Your task to perform on an android device: What does the iPhone 8 look like on eBay? Image 0: 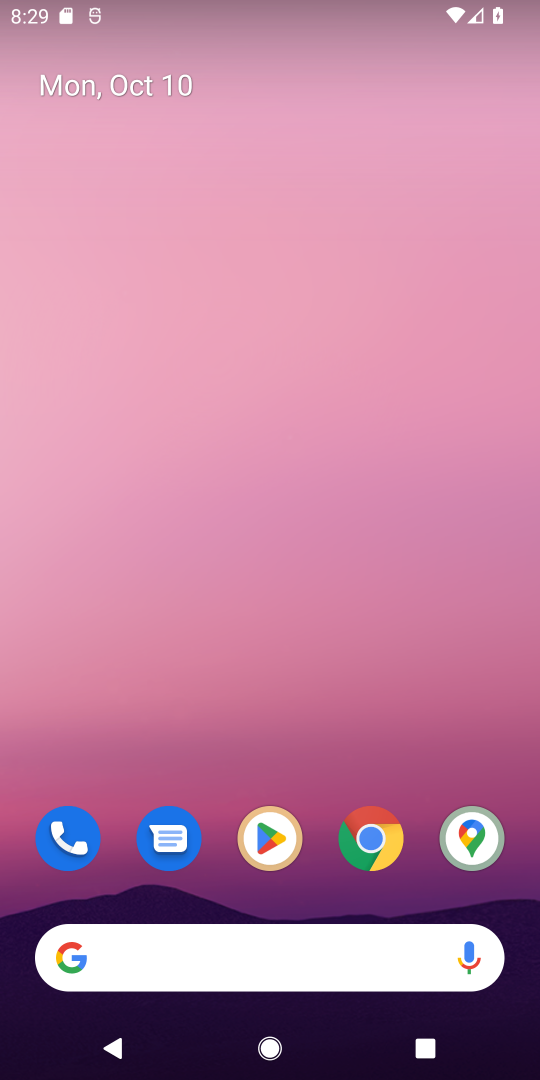
Step 0: click (370, 850)
Your task to perform on an android device: What does the iPhone 8 look like on eBay? Image 1: 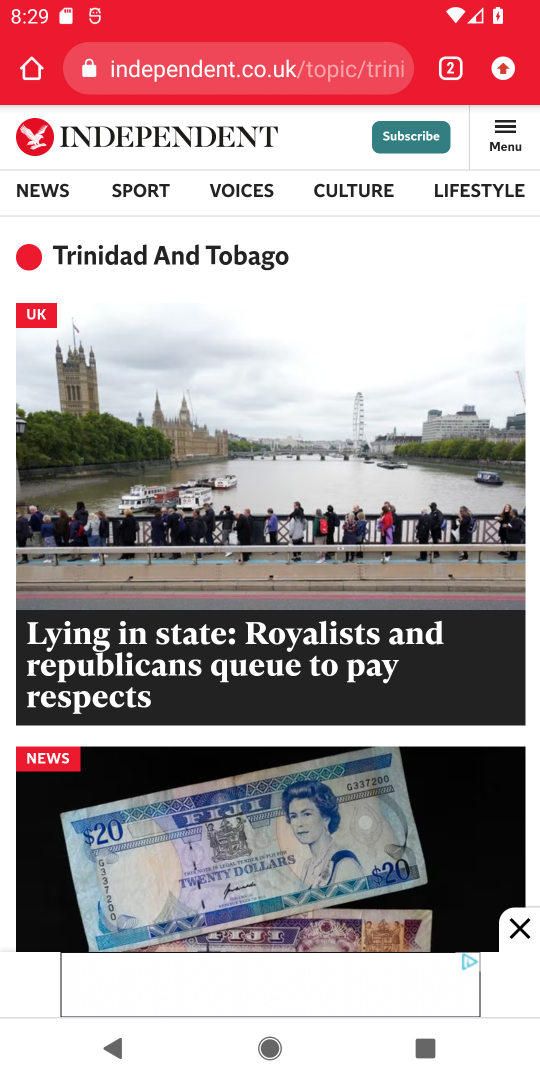
Step 1: click (257, 47)
Your task to perform on an android device: What does the iPhone 8 look like on eBay? Image 2: 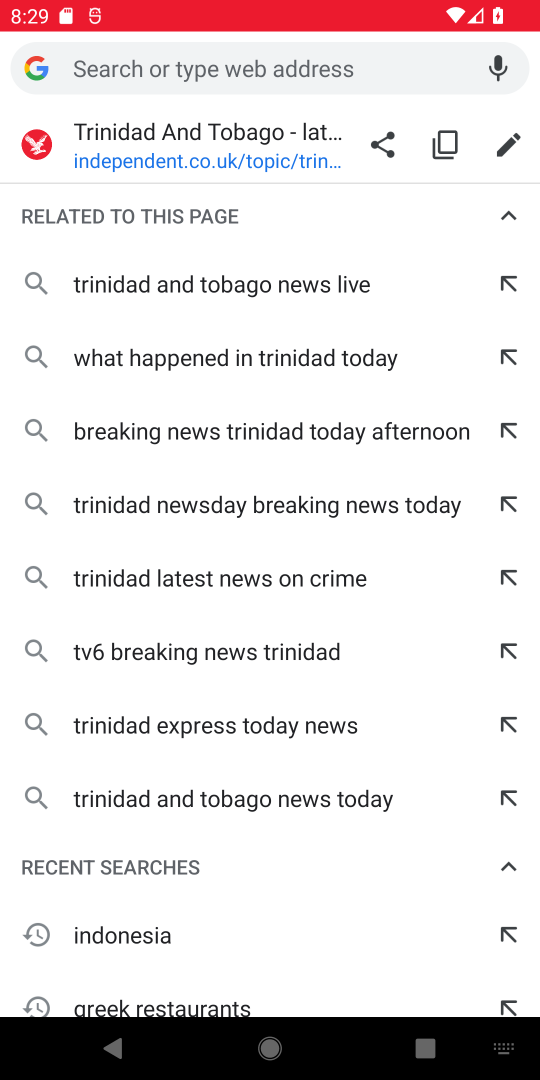
Step 2: type "ebay"
Your task to perform on an android device: What does the iPhone 8 look like on eBay? Image 3: 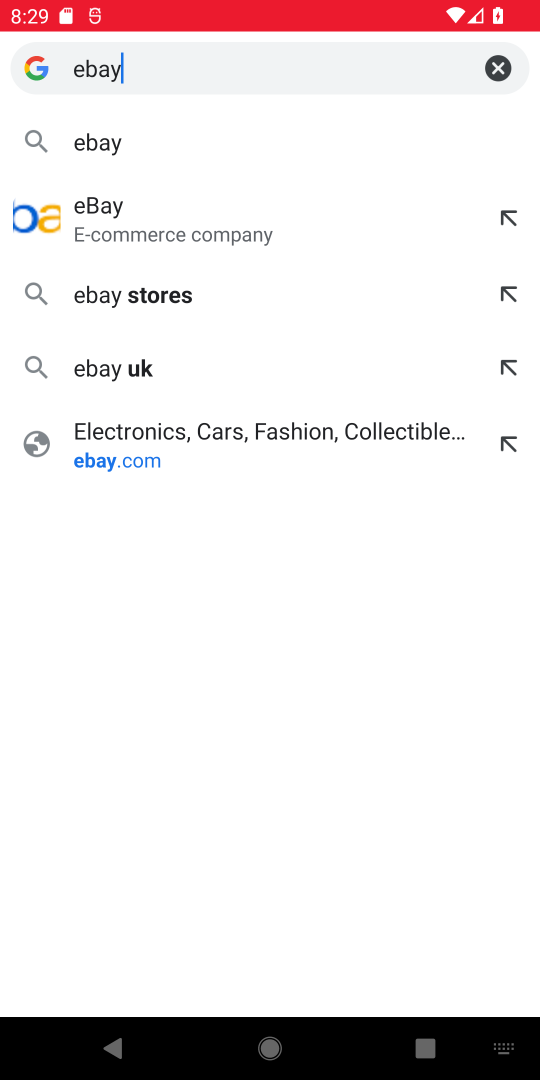
Step 3: click (111, 202)
Your task to perform on an android device: What does the iPhone 8 look like on eBay? Image 4: 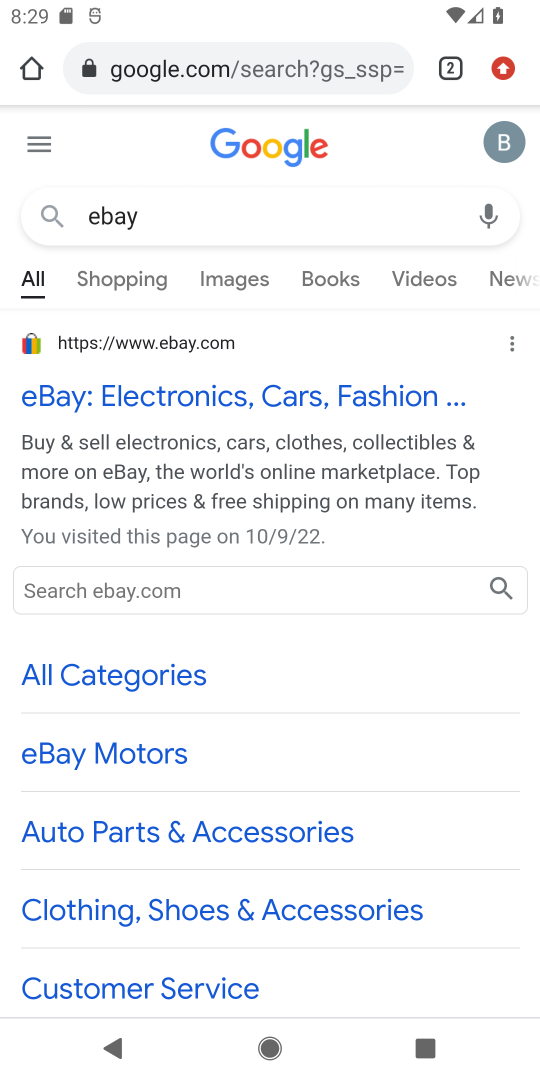
Step 4: click (168, 393)
Your task to perform on an android device: What does the iPhone 8 look like on eBay? Image 5: 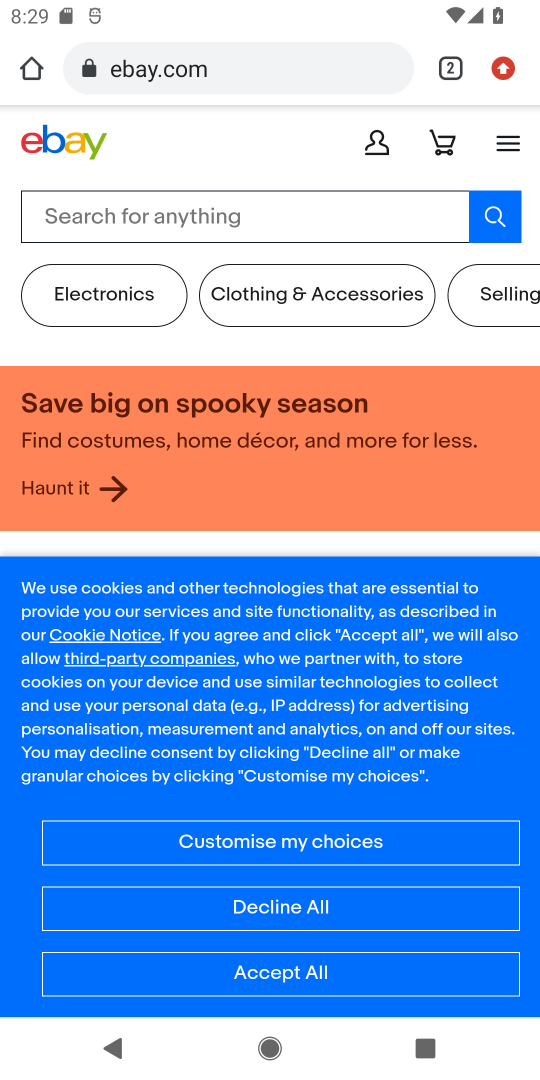
Step 5: click (279, 977)
Your task to perform on an android device: What does the iPhone 8 look like on eBay? Image 6: 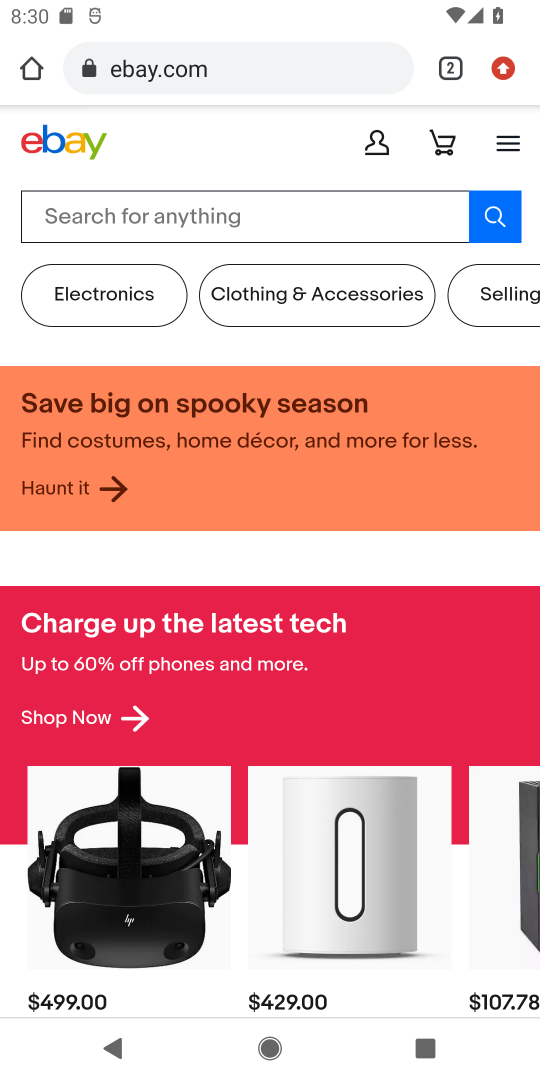
Step 6: click (180, 200)
Your task to perform on an android device: What does the iPhone 8 look like on eBay? Image 7: 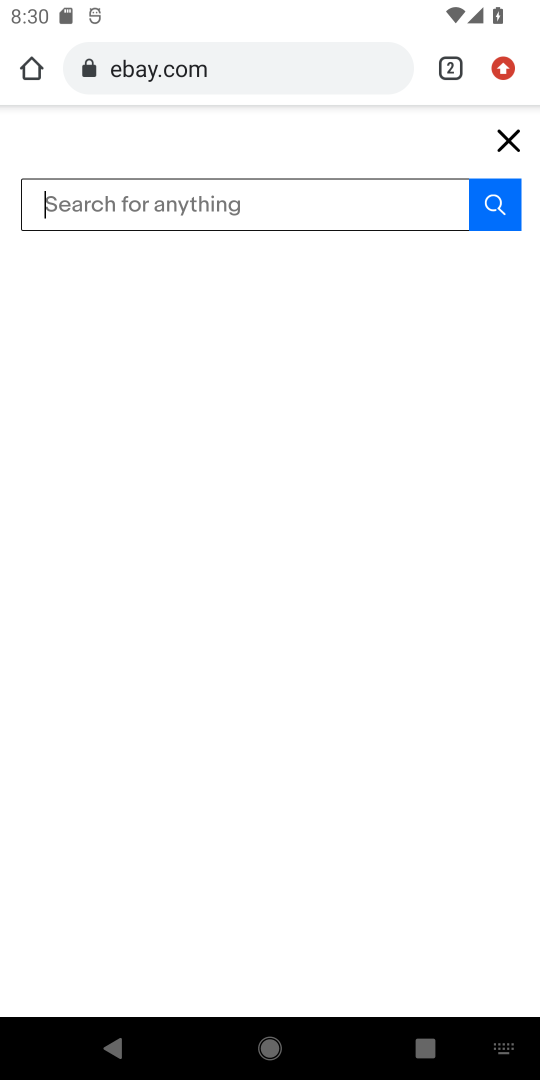
Step 7: type "iphone 8 "
Your task to perform on an android device: What does the iPhone 8 look like on eBay? Image 8: 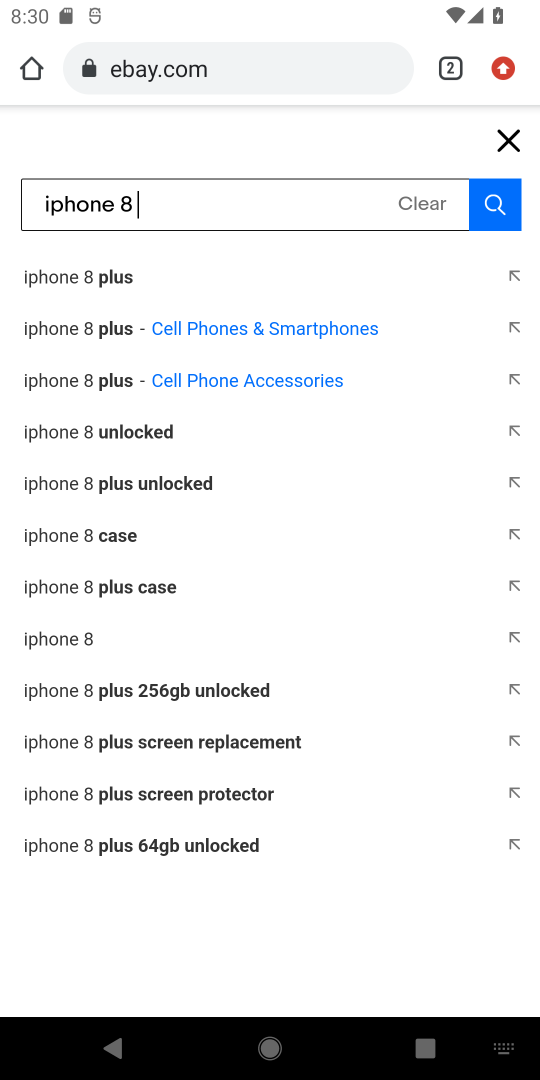
Step 8: click (75, 636)
Your task to perform on an android device: What does the iPhone 8 look like on eBay? Image 9: 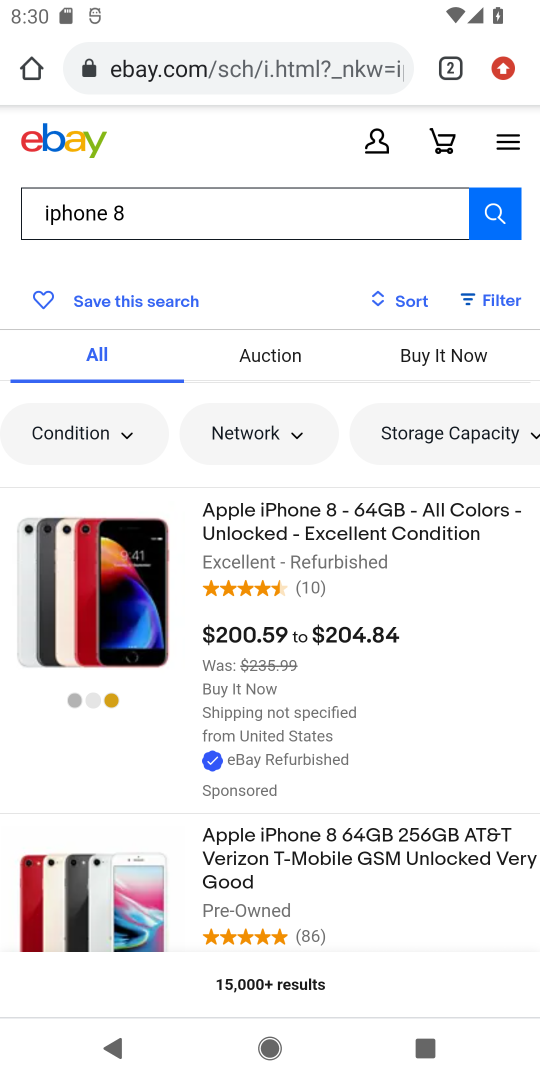
Step 9: task complete